Your task to perform on an android device: set default search engine in the chrome app Image 0: 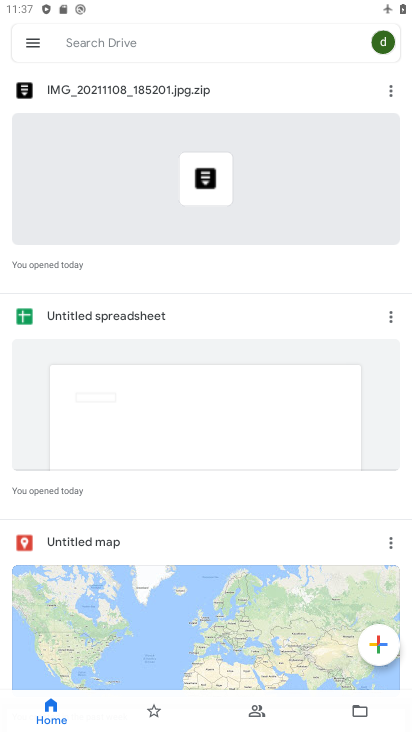
Step 0: press home button
Your task to perform on an android device: set default search engine in the chrome app Image 1: 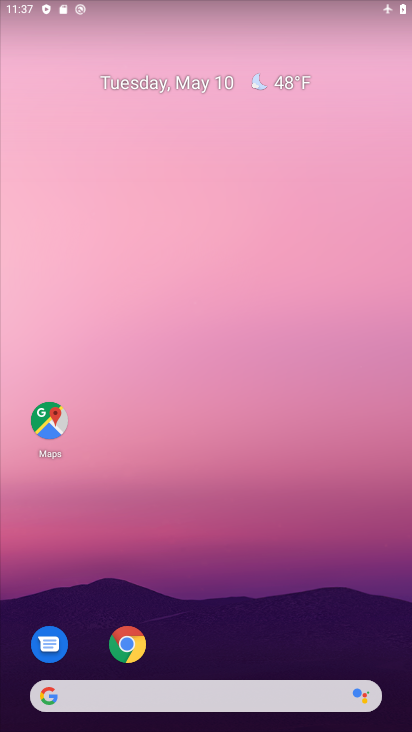
Step 1: drag from (235, 575) to (322, 20)
Your task to perform on an android device: set default search engine in the chrome app Image 2: 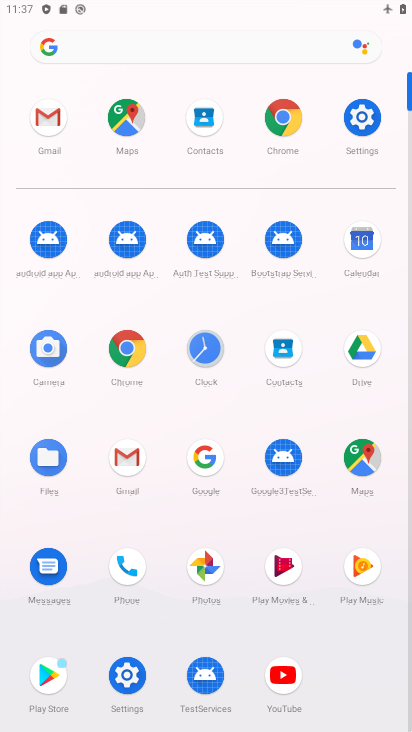
Step 2: click (286, 138)
Your task to perform on an android device: set default search engine in the chrome app Image 3: 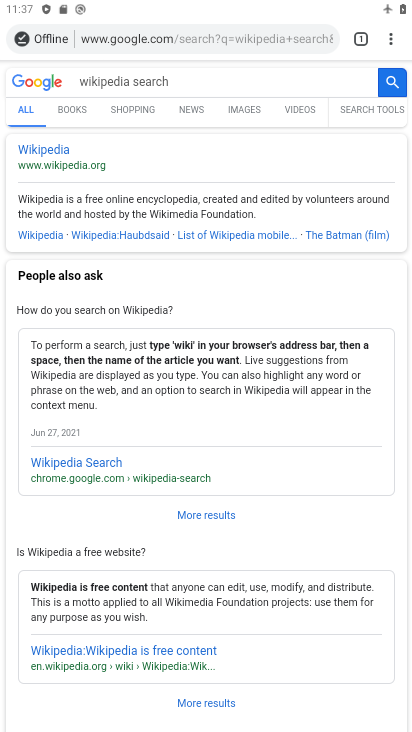
Step 3: click (389, 36)
Your task to perform on an android device: set default search engine in the chrome app Image 4: 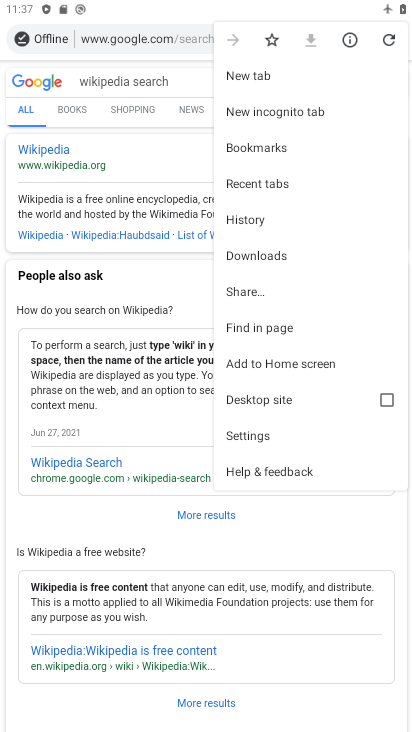
Step 4: click (251, 443)
Your task to perform on an android device: set default search engine in the chrome app Image 5: 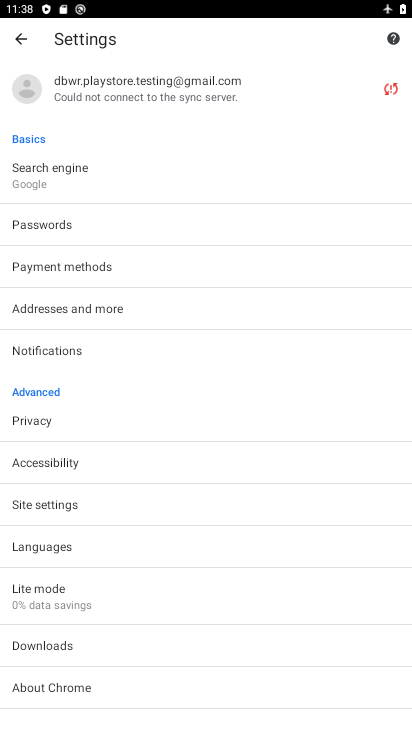
Step 5: click (89, 170)
Your task to perform on an android device: set default search engine in the chrome app Image 6: 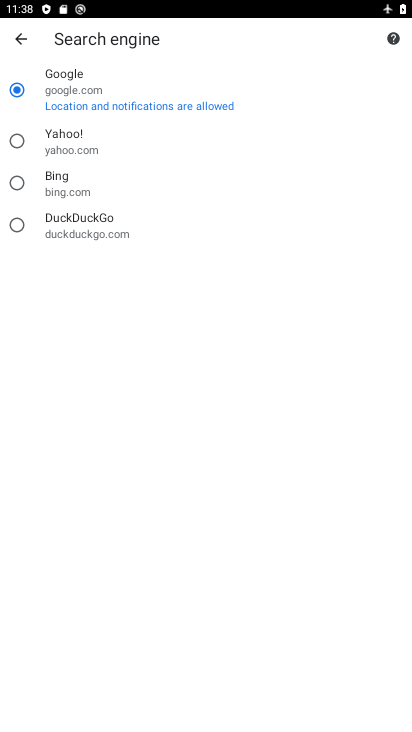
Step 6: task complete